Your task to perform on an android device: uninstall "Pinterest" Image 0: 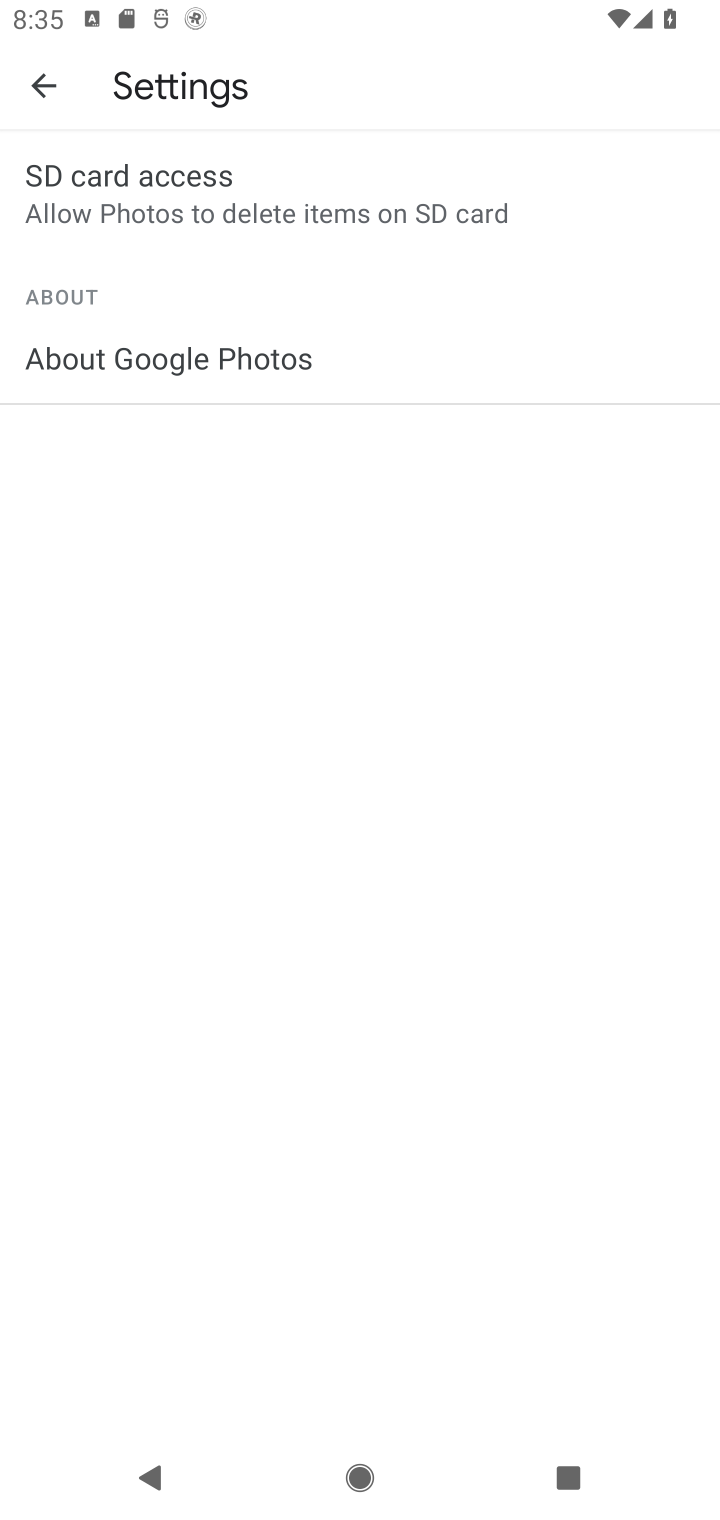
Step 0: press home button
Your task to perform on an android device: uninstall "Pinterest" Image 1: 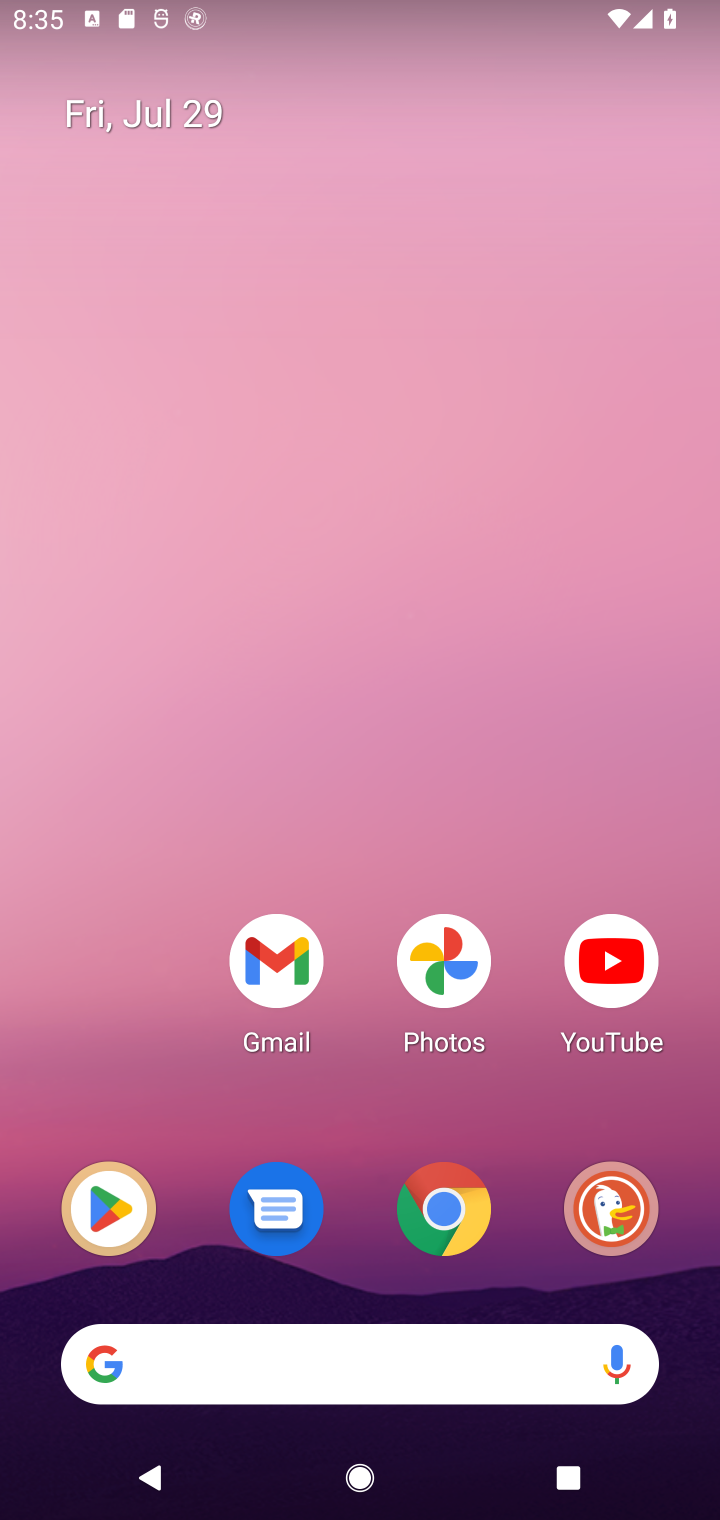
Step 1: click (97, 1225)
Your task to perform on an android device: uninstall "Pinterest" Image 2: 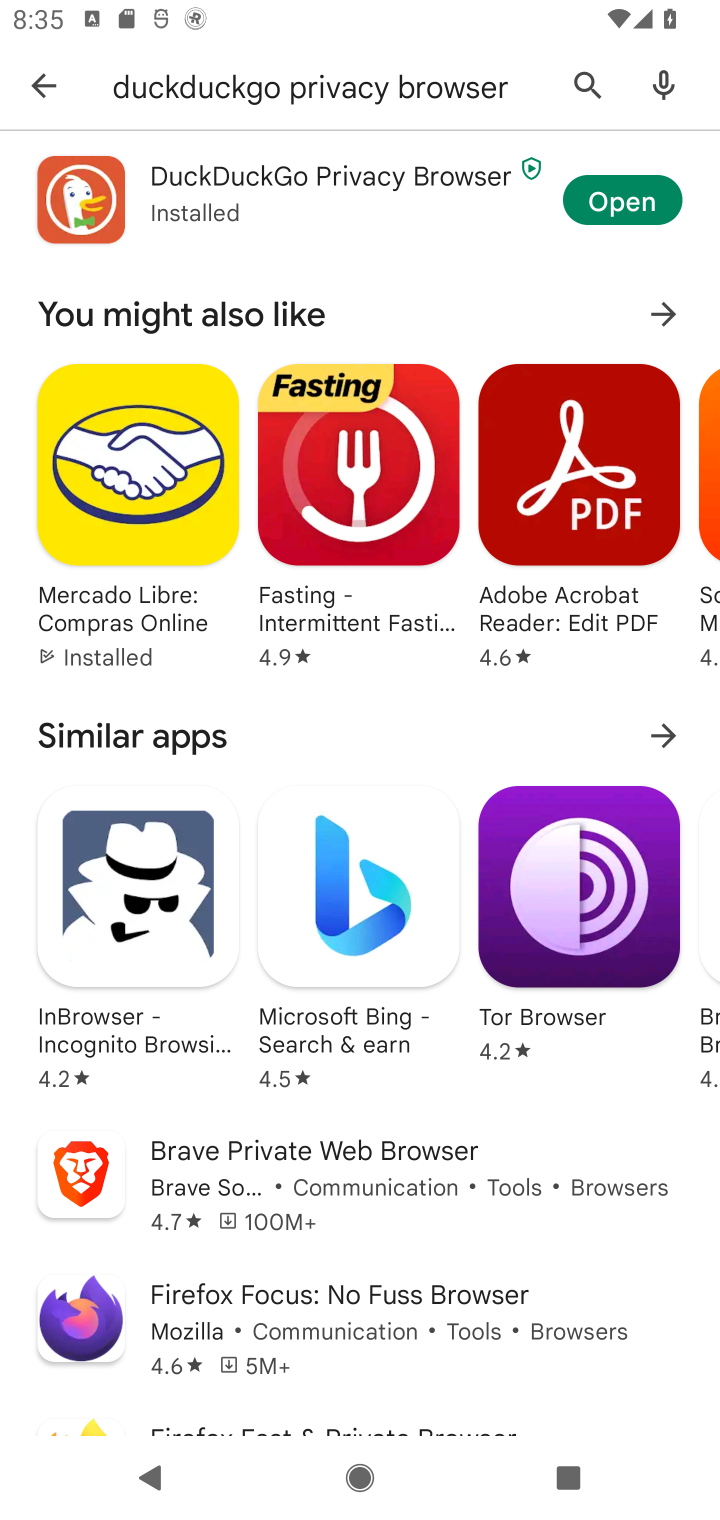
Step 2: click (578, 86)
Your task to perform on an android device: uninstall "Pinterest" Image 3: 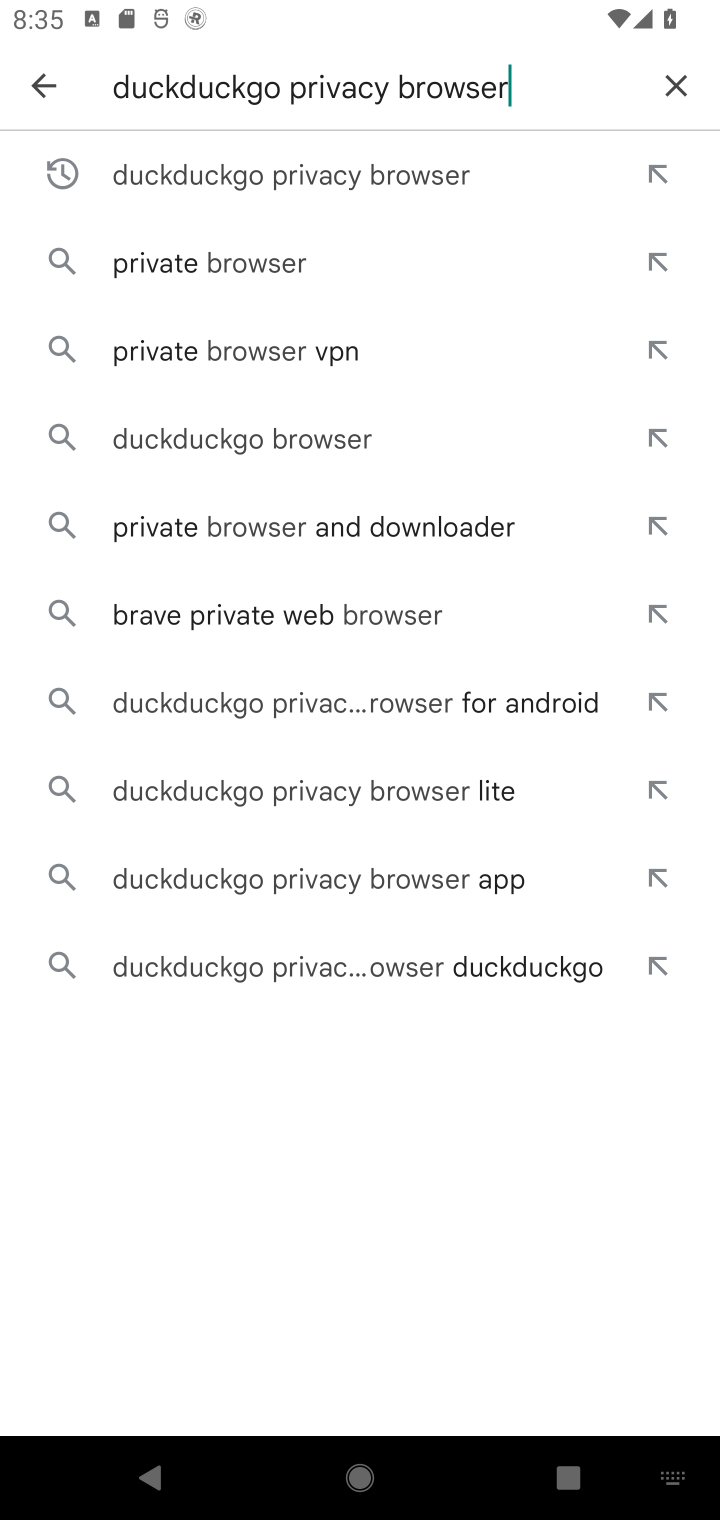
Step 3: click (679, 90)
Your task to perform on an android device: uninstall "Pinterest" Image 4: 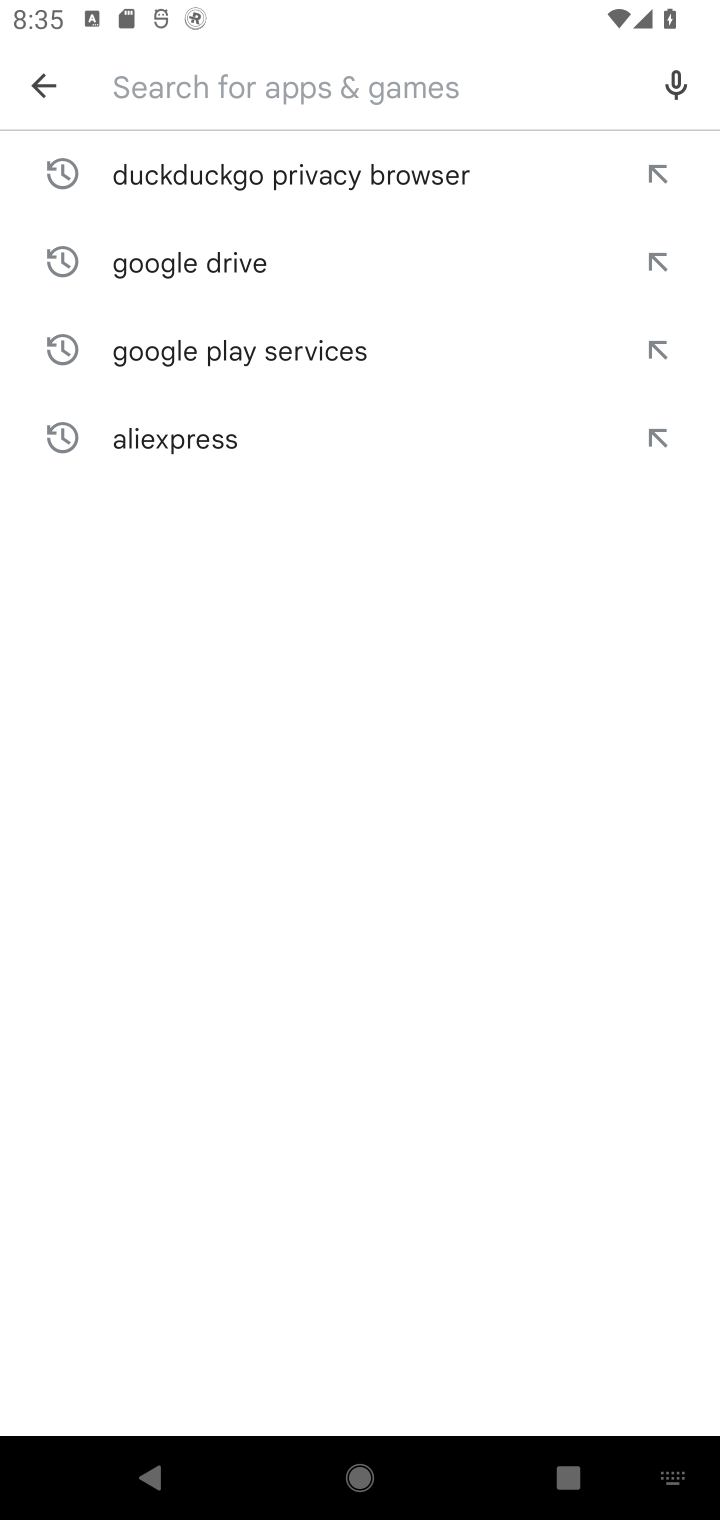
Step 4: type "Pinterest"
Your task to perform on an android device: uninstall "Pinterest" Image 5: 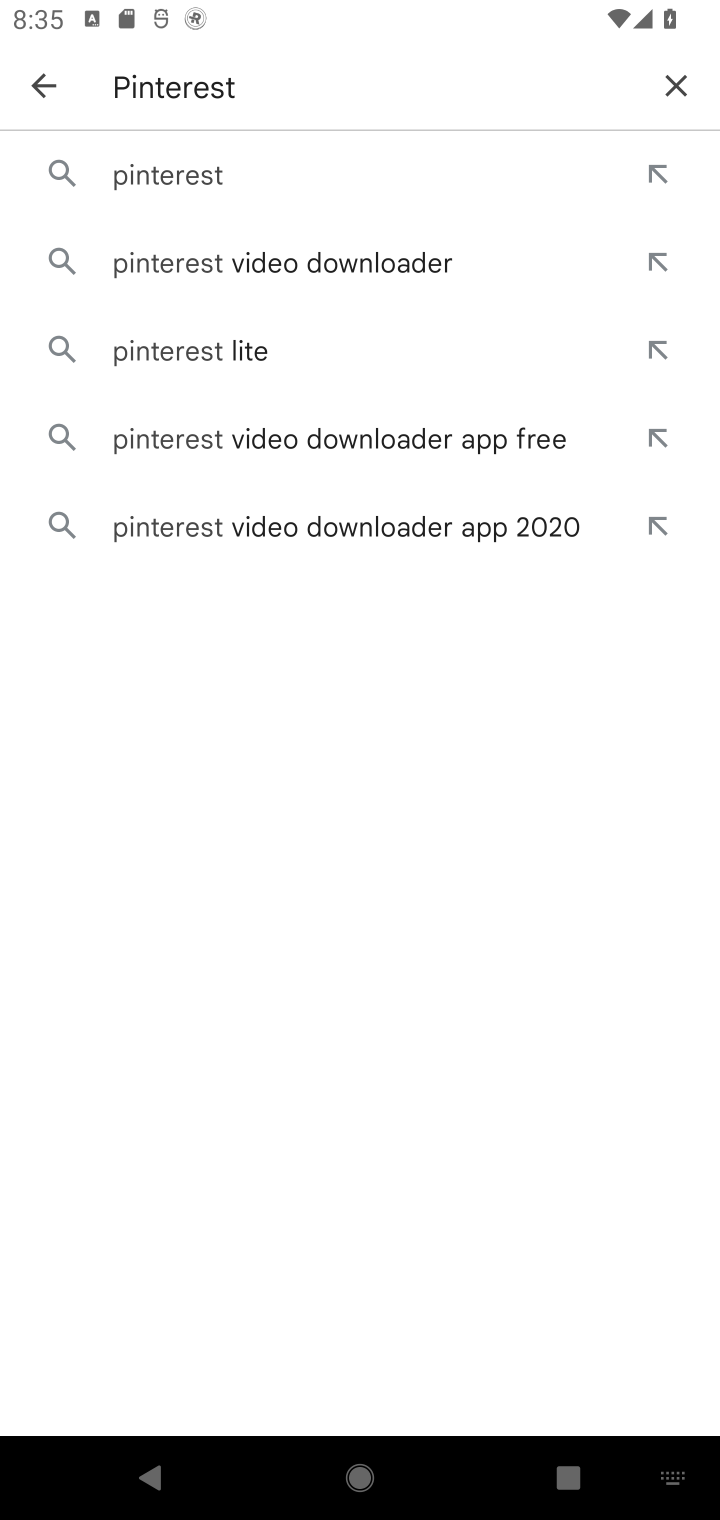
Step 5: click (144, 185)
Your task to perform on an android device: uninstall "Pinterest" Image 6: 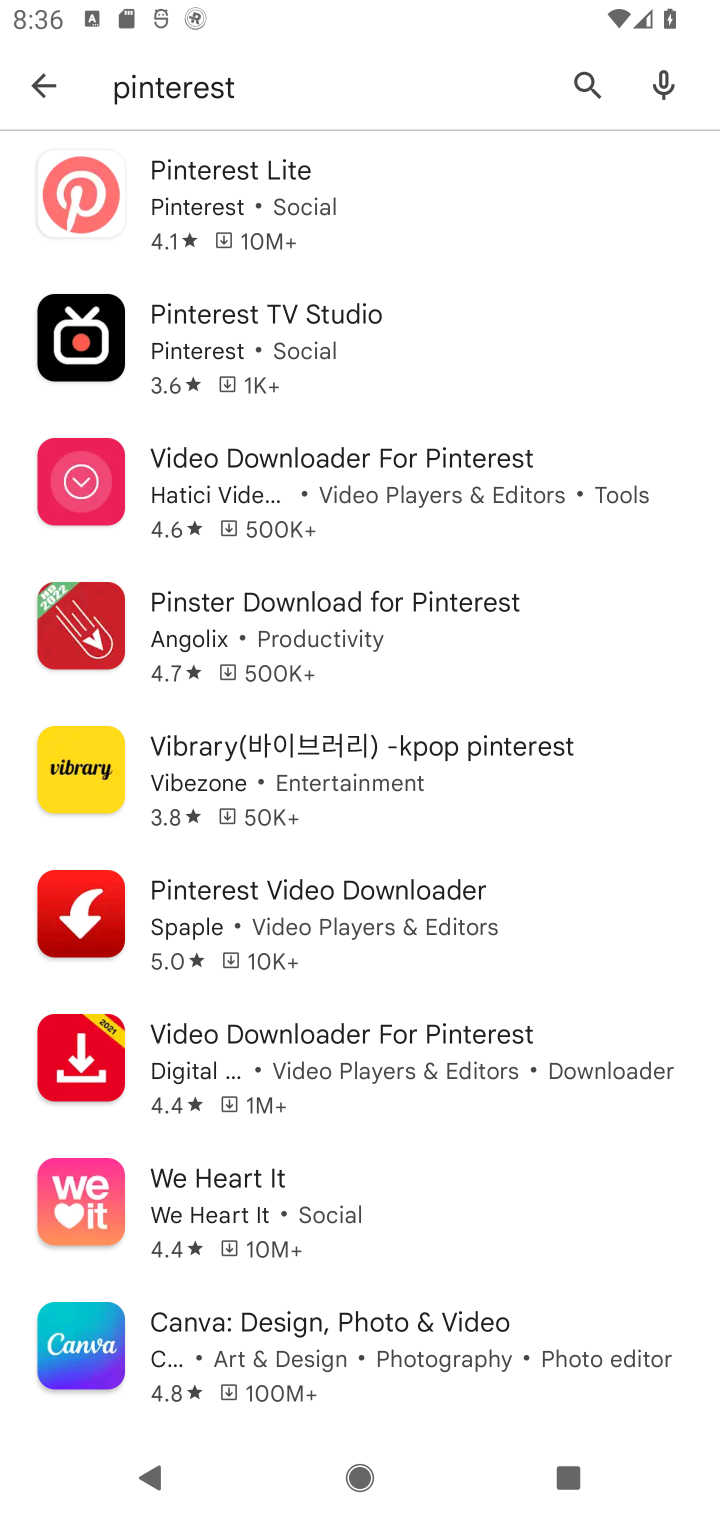
Step 6: task complete